Your task to perform on an android device: create a new album in the google photos Image 0: 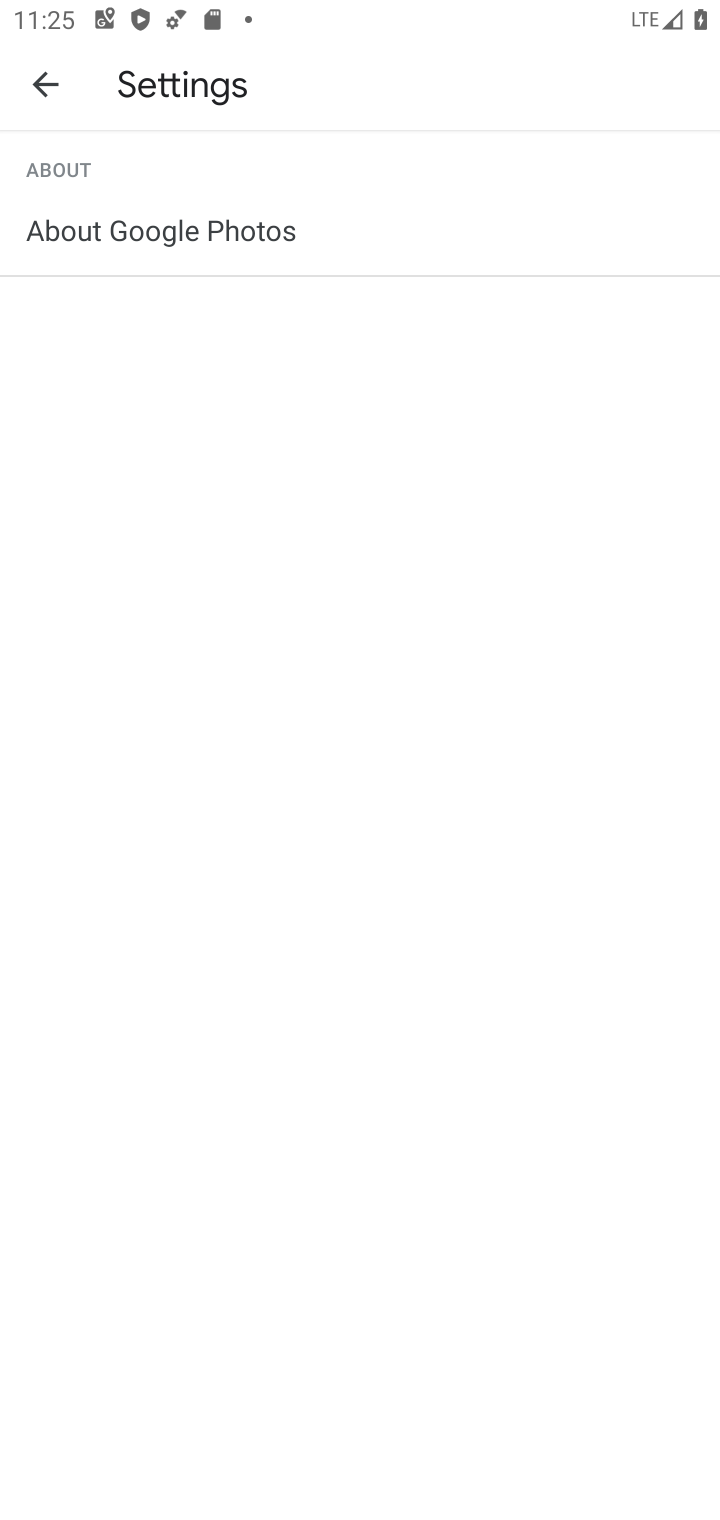
Step 0: press back button
Your task to perform on an android device: create a new album in the google photos Image 1: 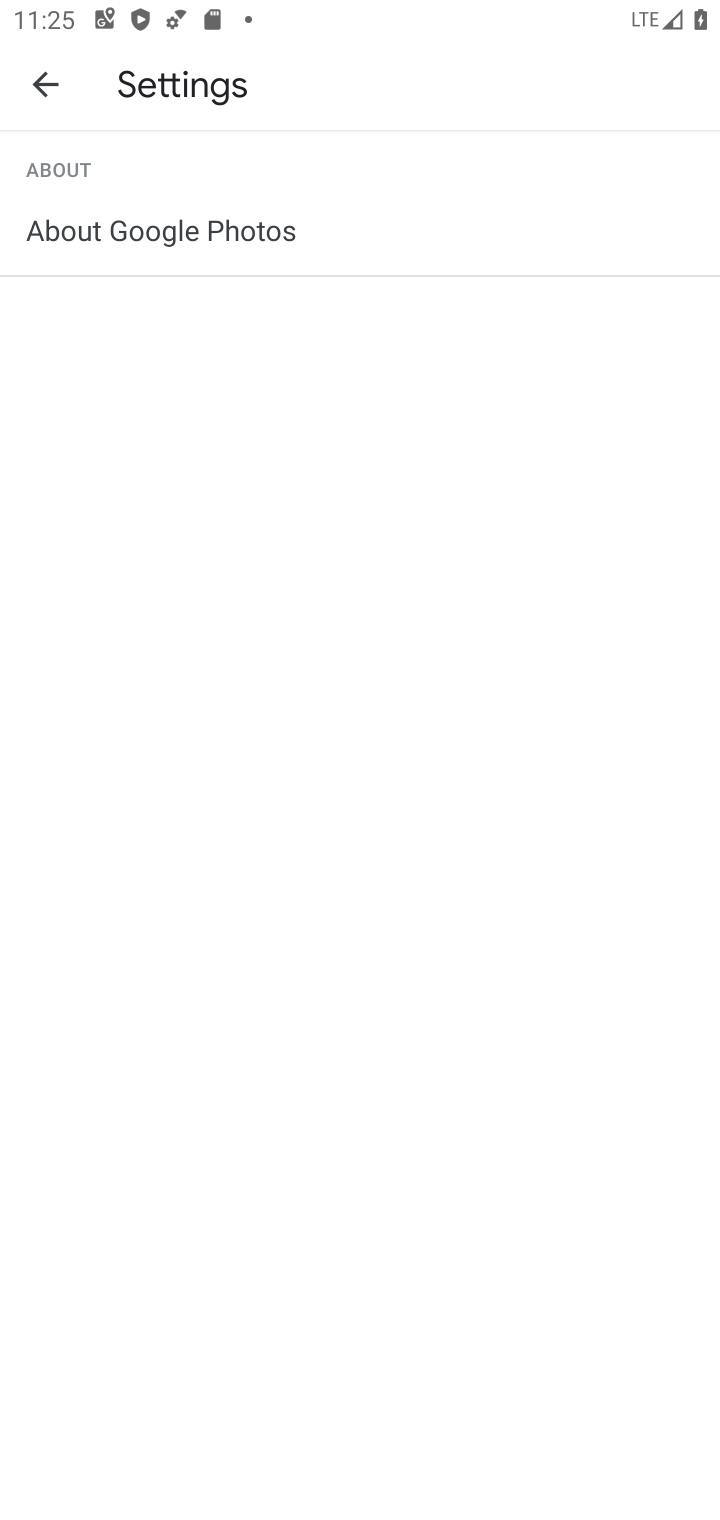
Step 1: press back button
Your task to perform on an android device: create a new album in the google photos Image 2: 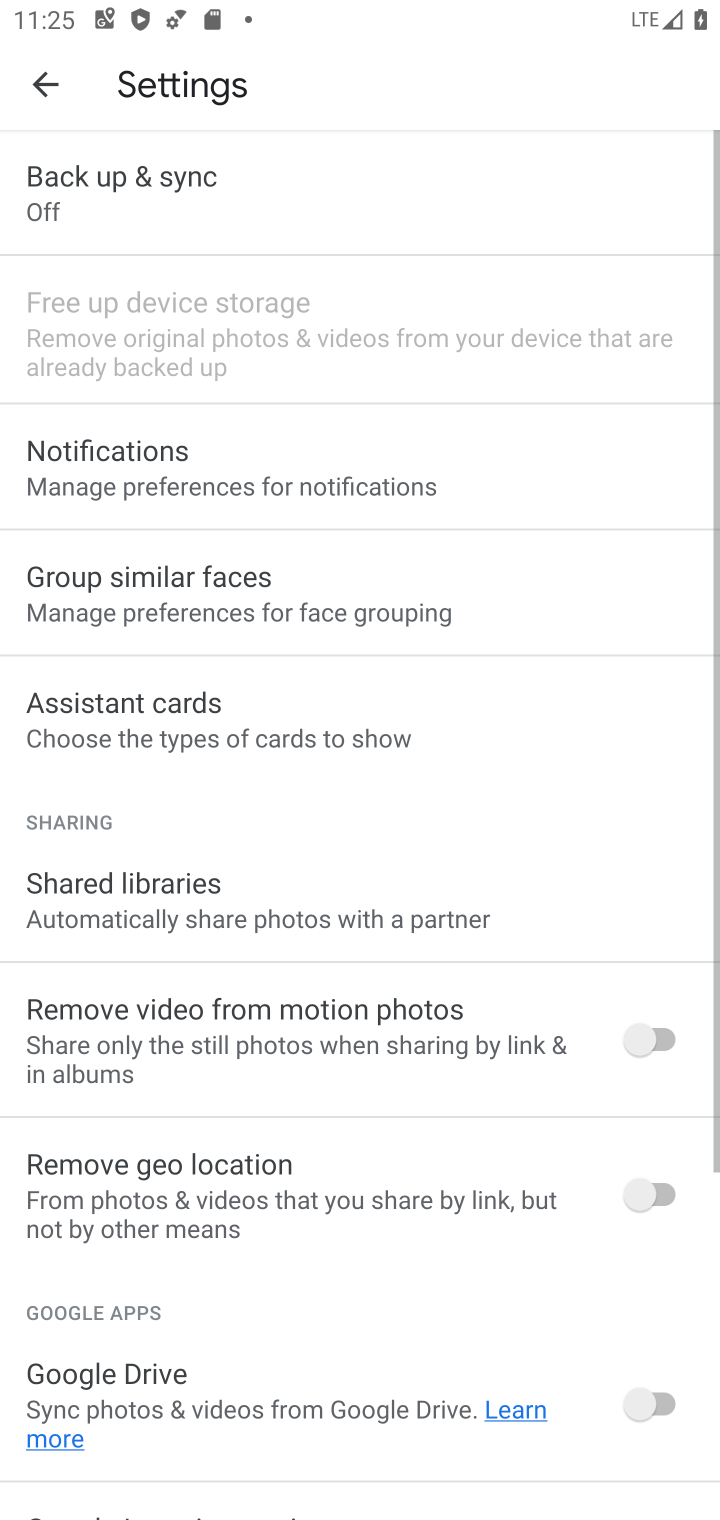
Step 2: press back button
Your task to perform on an android device: create a new album in the google photos Image 3: 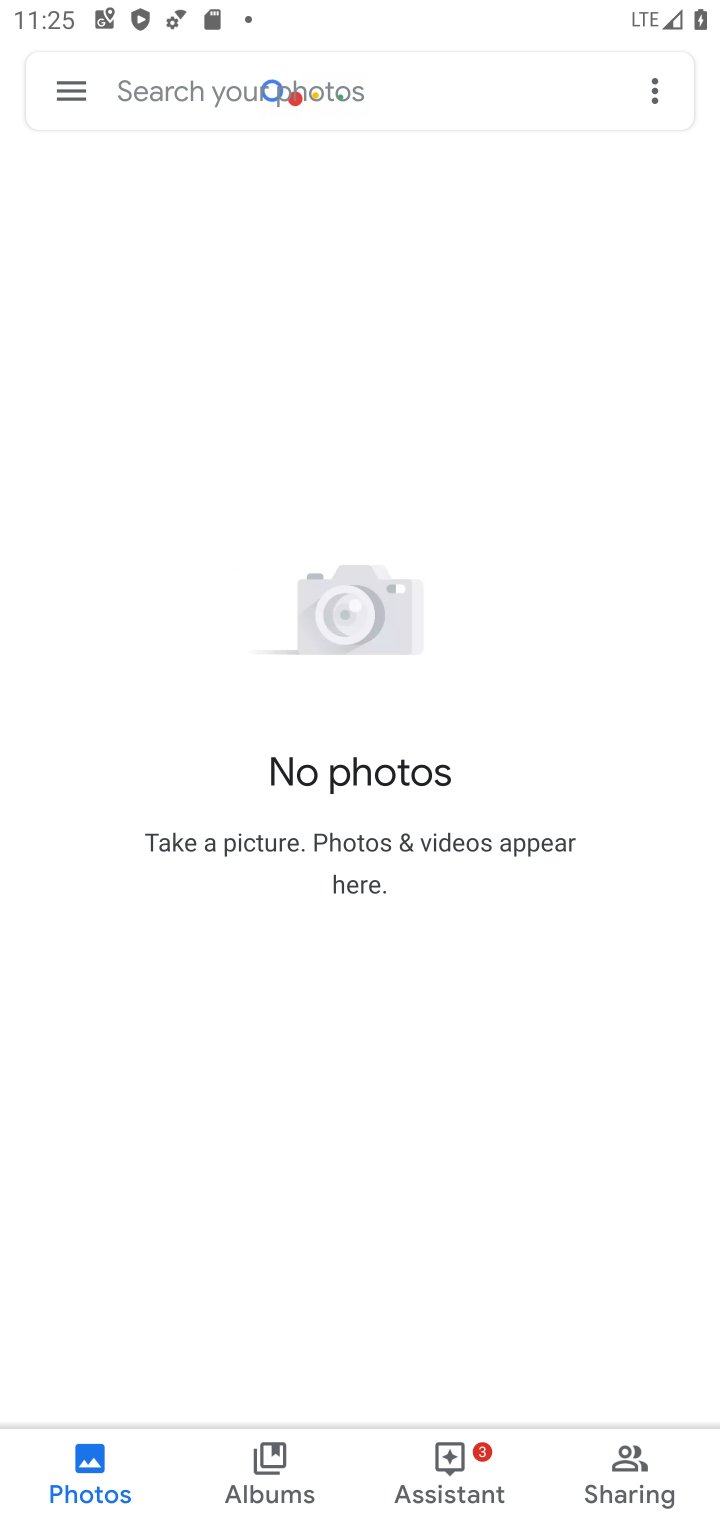
Step 3: click (266, 1475)
Your task to perform on an android device: create a new album in the google photos Image 4: 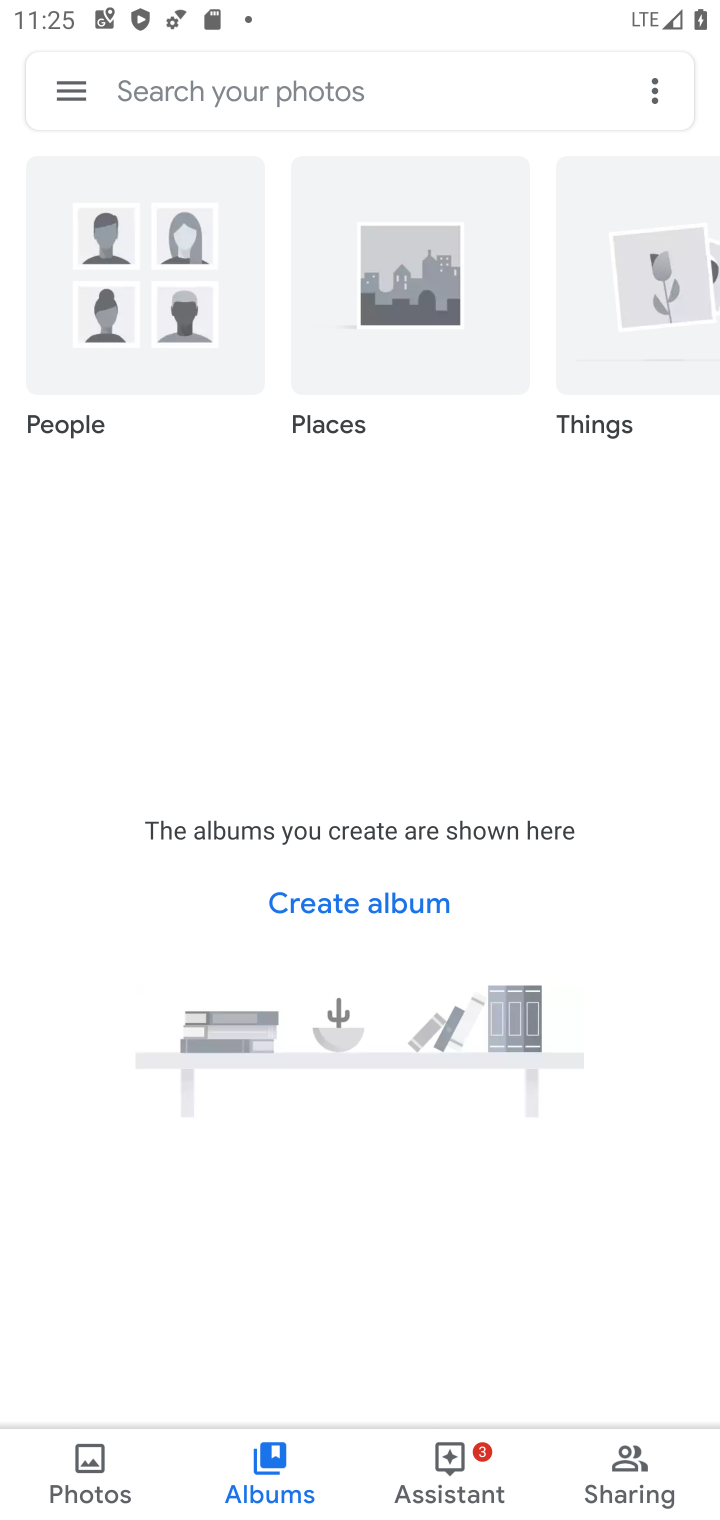
Step 4: click (303, 910)
Your task to perform on an android device: create a new album in the google photos Image 5: 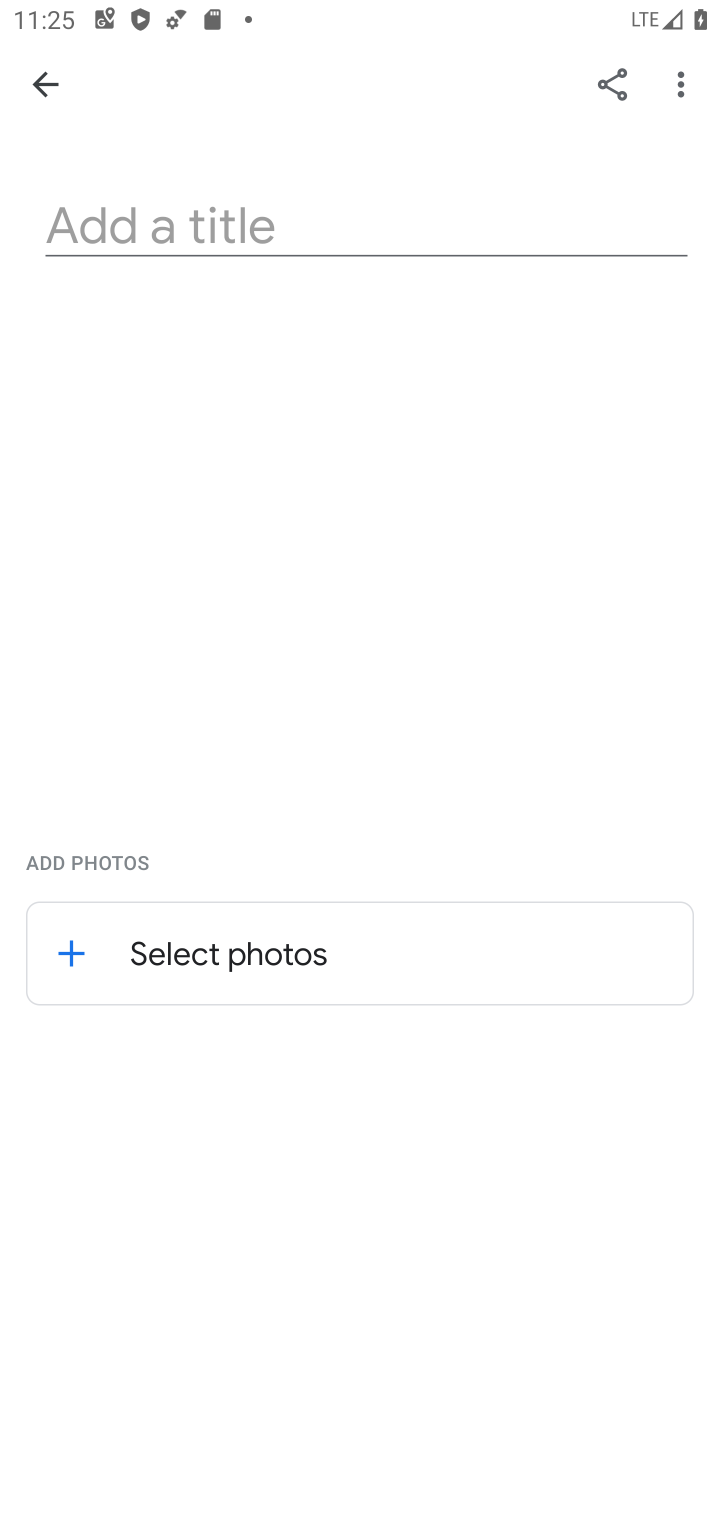
Step 5: click (171, 197)
Your task to perform on an android device: create a new album in the google photos Image 6: 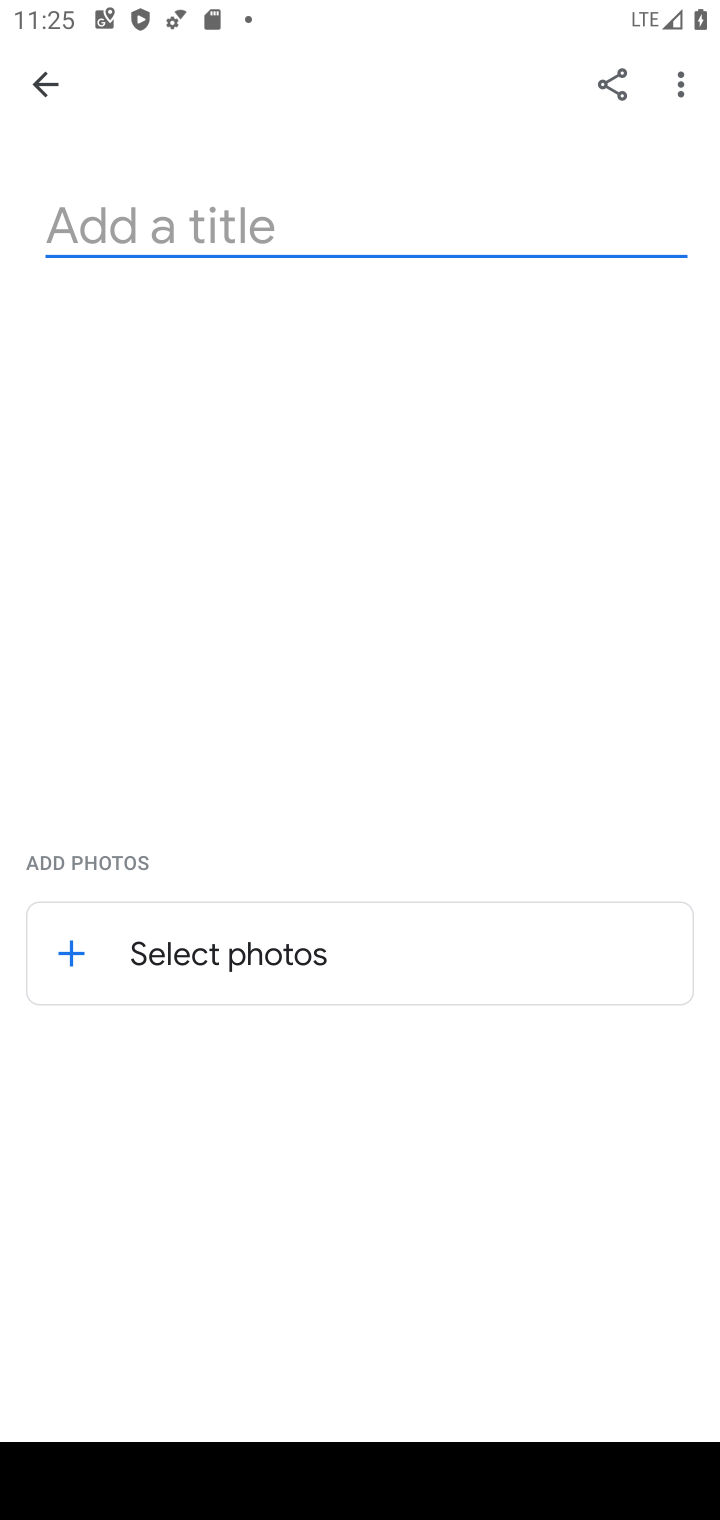
Step 6: type "hvhv"
Your task to perform on an android device: create a new album in the google photos Image 7: 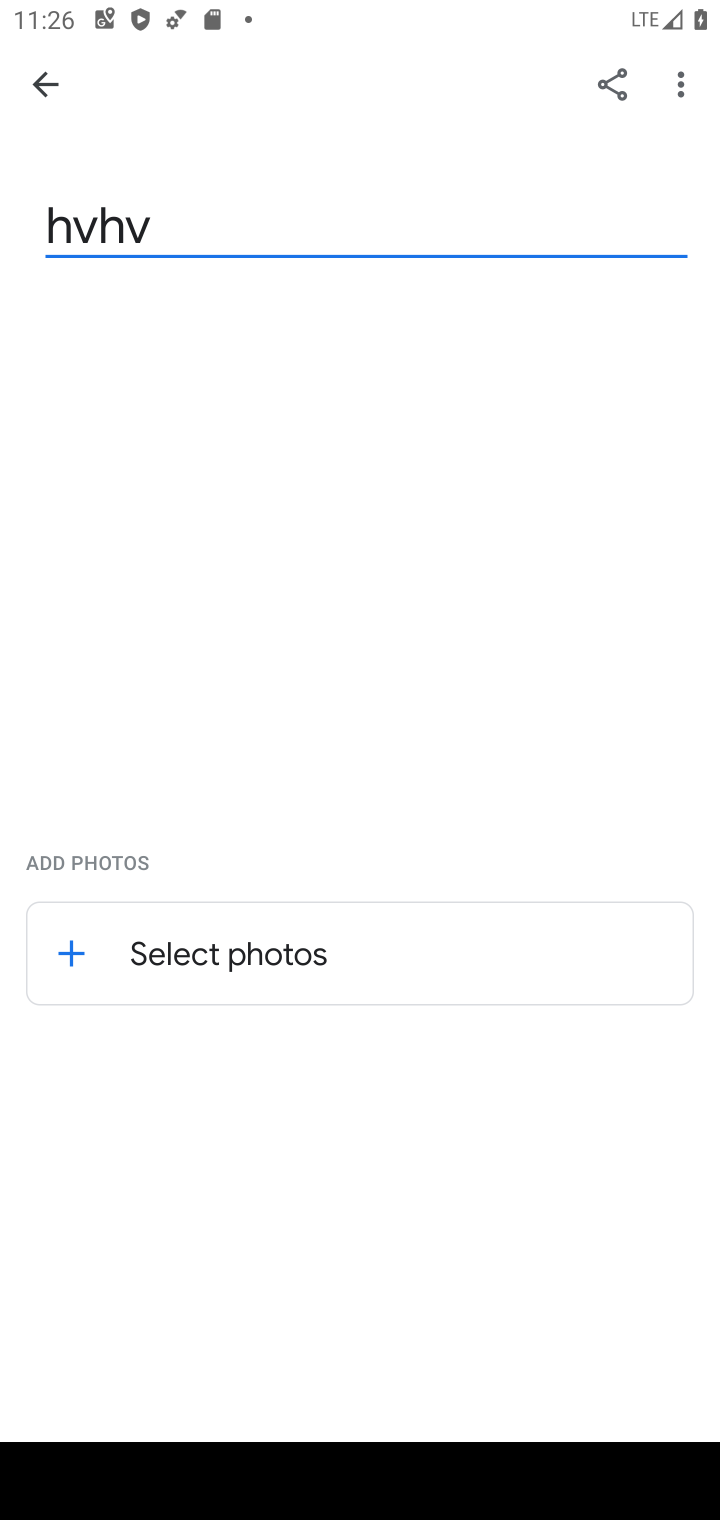
Step 7: click (280, 951)
Your task to perform on an android device: create a new album in the google photos Image 8: 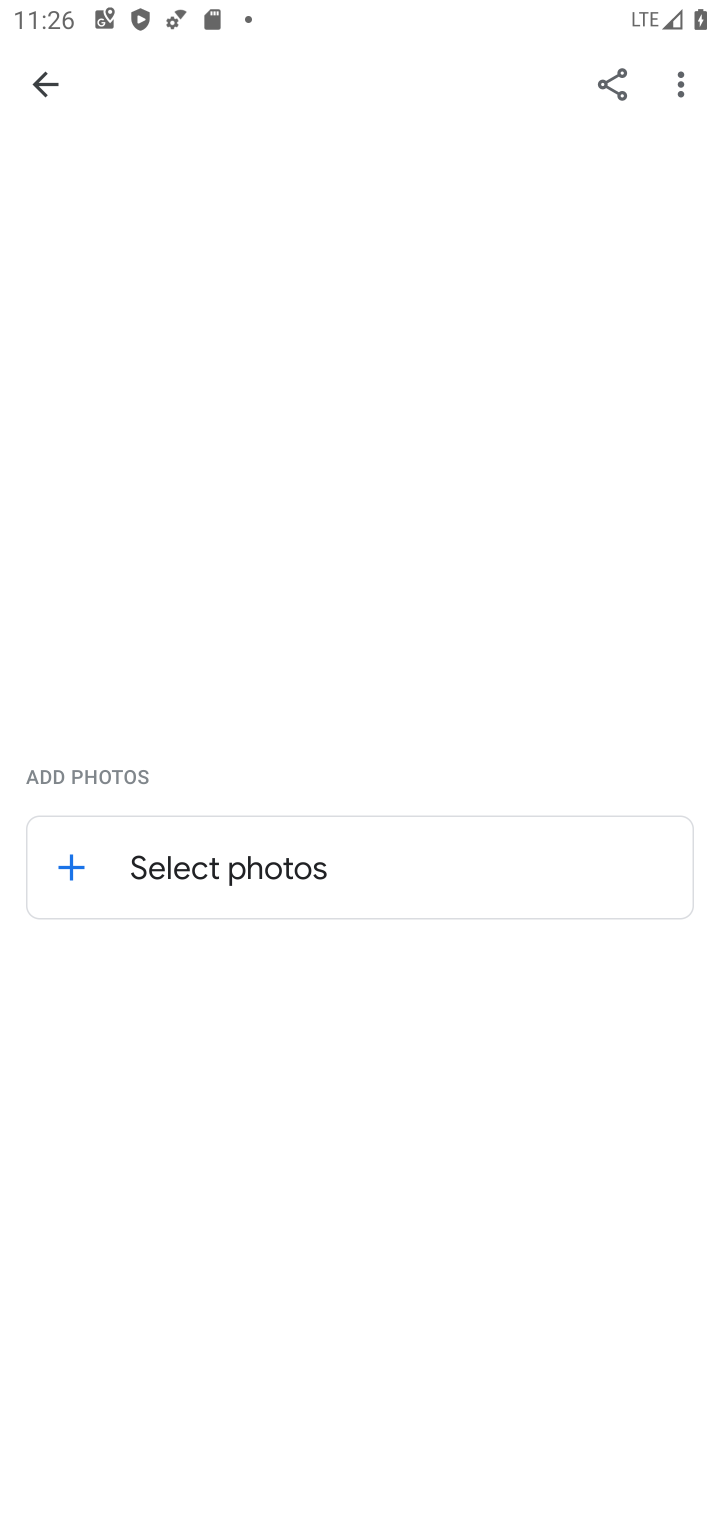
Step 8: click (256, 853)
Your task to perform on an android device: create a new album in the google photos Image 9: 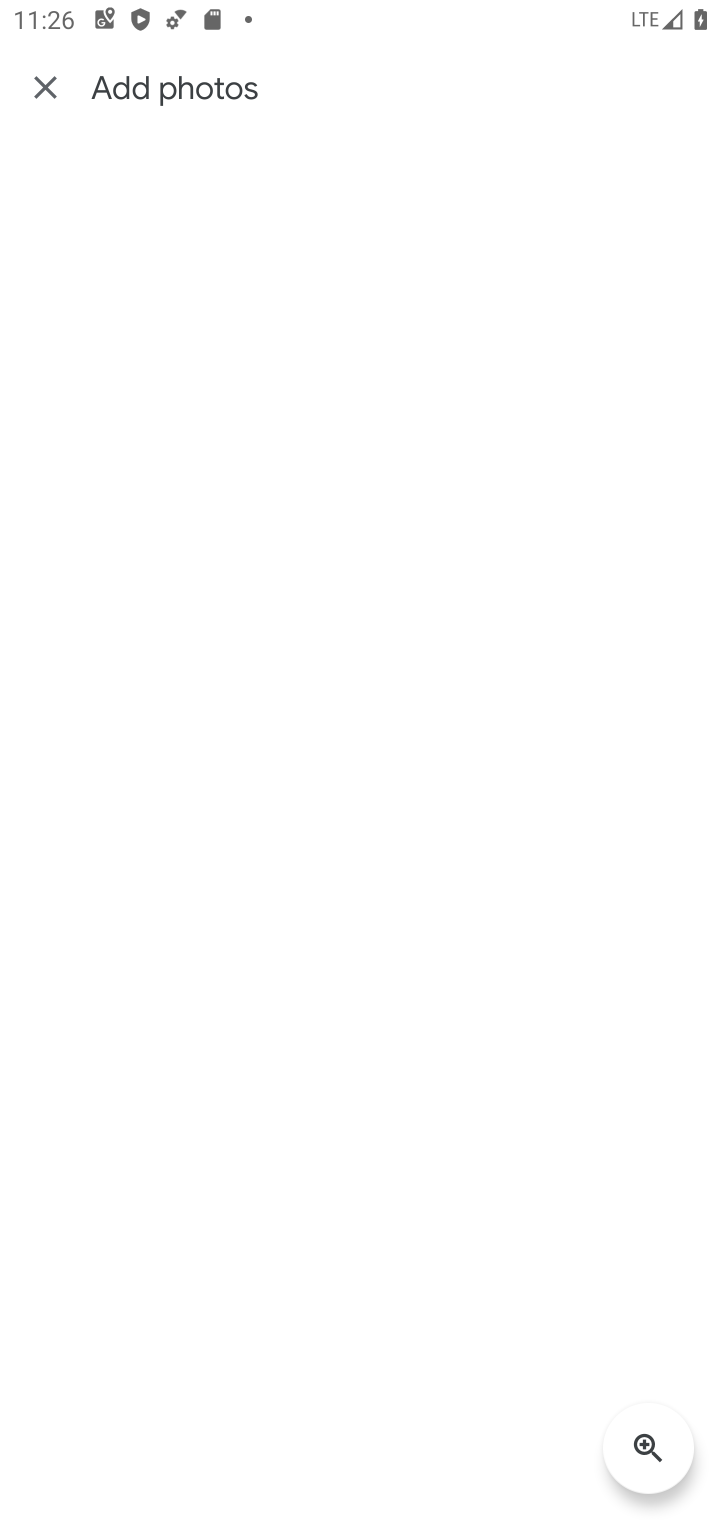
Step 9: task complete